Your task to perform on an android device: Go to notification settings Image 0: 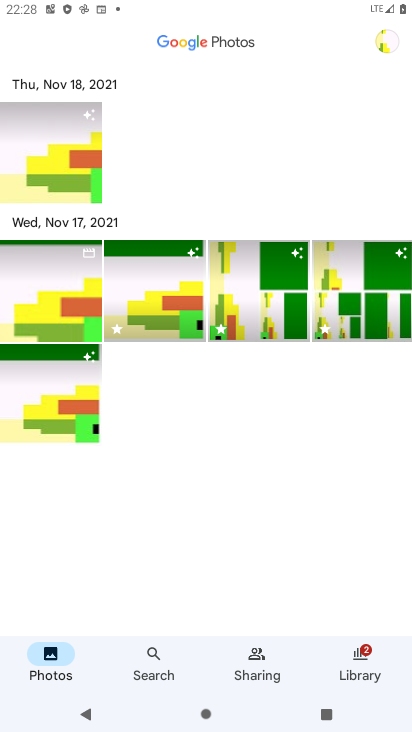
Step 0: press home button
Your task to perform on an android device: Go to notification settings Image 1: 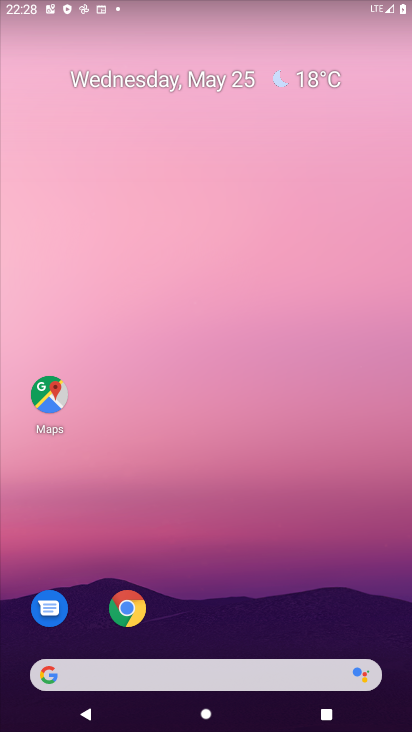
Step 1: drag from (288, 600) to (237, 0)
Your task to perform on an android device: Go to notification settings Image 2: 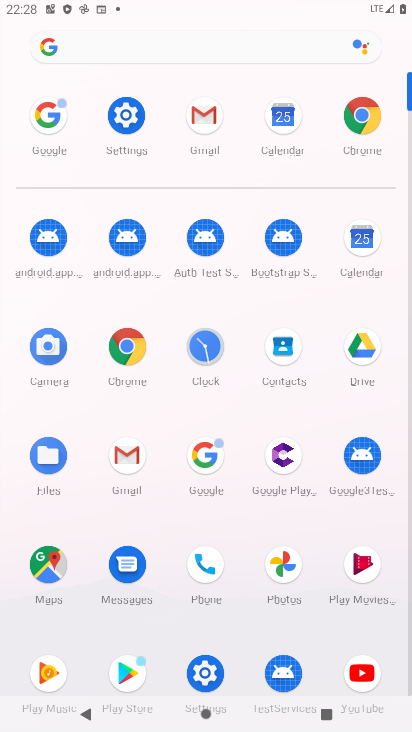
Step 2: click (123, 119)
Your task to perform on an android device: Go to notification settings Image 3: 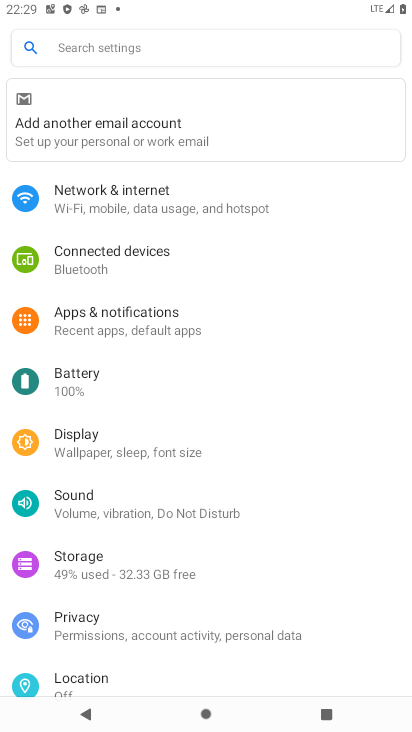
Step 3: click (144, 323)
Your task to perform on an android device: Go to notification settings Image 4: 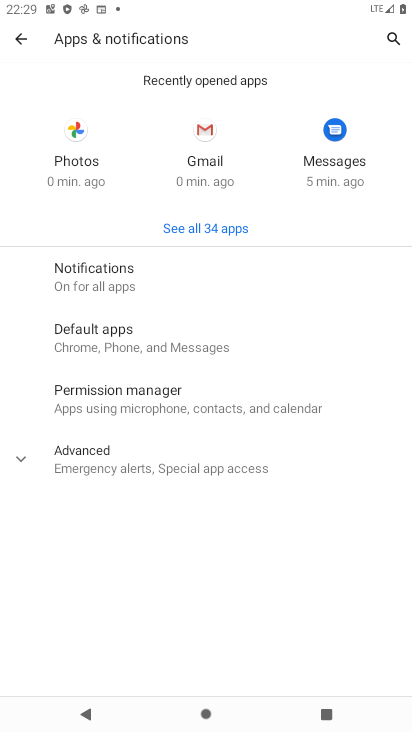
Step 4: task complete